Your task to perform on an android device: Open Google Chrome and open the bookmarks view Image 0: 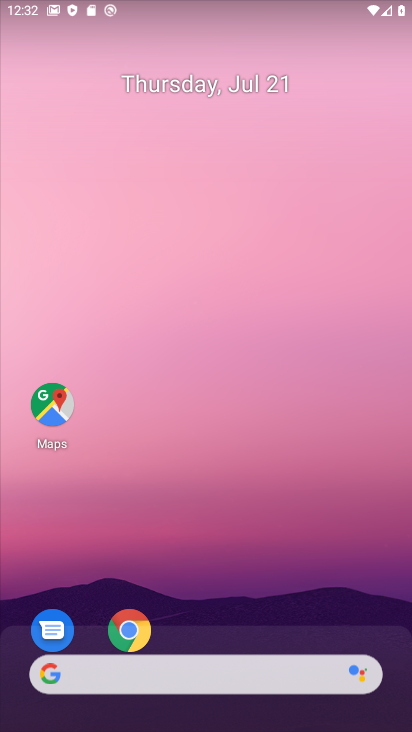
Step 0: click (142, 627)
Your task to perform on an android device: Open Google Chrome and open the bookmarks view Image 1: 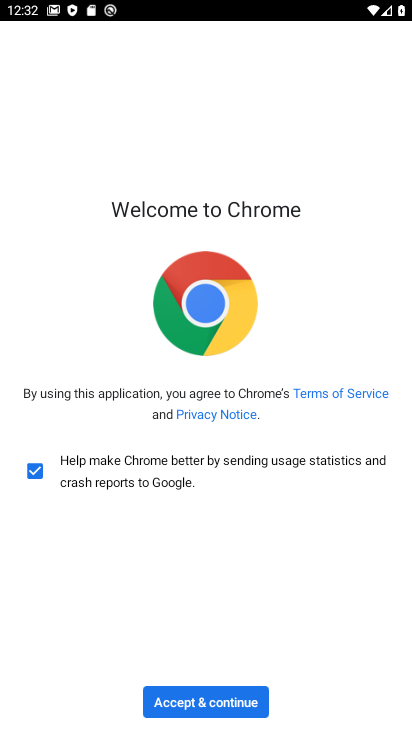
Step 1: click (221, 714)
Your task to perform on an android device: Open Google Chrome and open the bookmarks view Image 2: 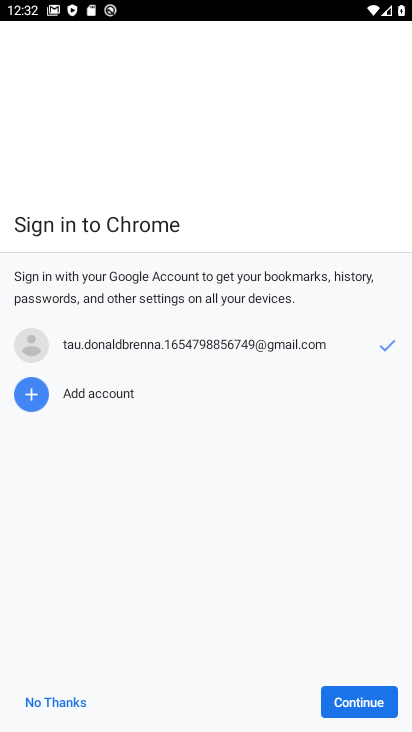
Step 2: click (335, 706)
Your task to perform on an android device: Open Google Chrome and open the bookmarks view Image 3: 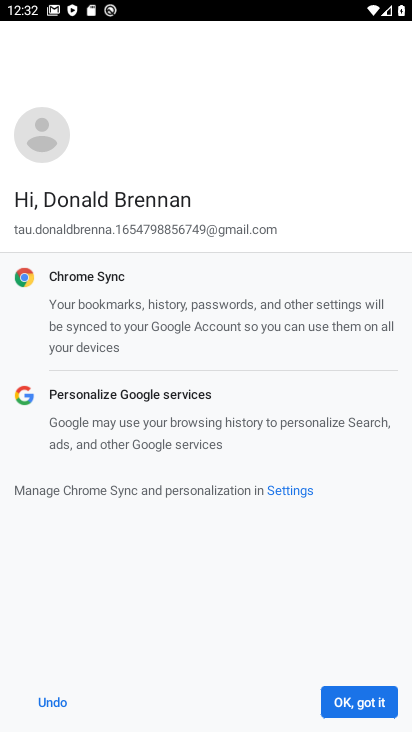
Step 3: click (362, 707)
Your task to perform on an android device: Open Google Chrome and open the bookmarks view Image 4: 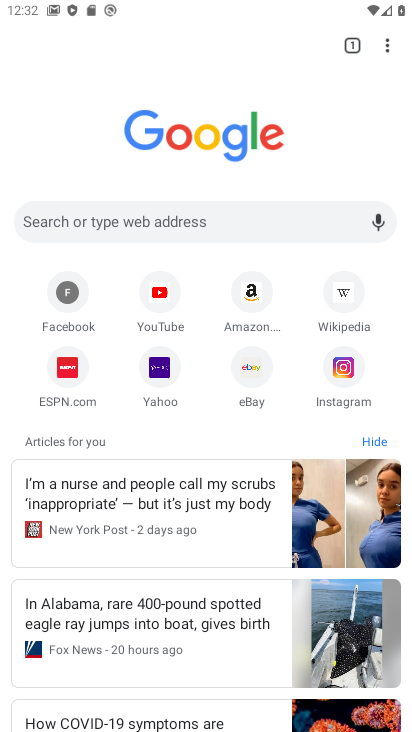
Step 4: click (389, 41)
Your task to perform on an android device: Open Google Chrome and open the bookmarks view Image 5: 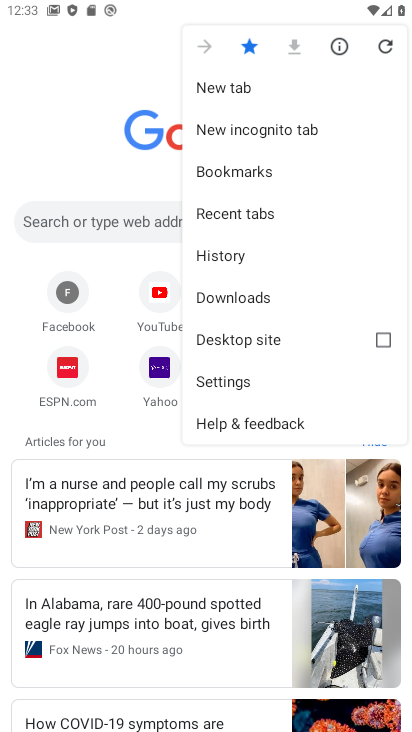
Step 5: click (275, 170)
Your task to perform on an android device: Open Google Chrome and open the bookmarks view Image 6: 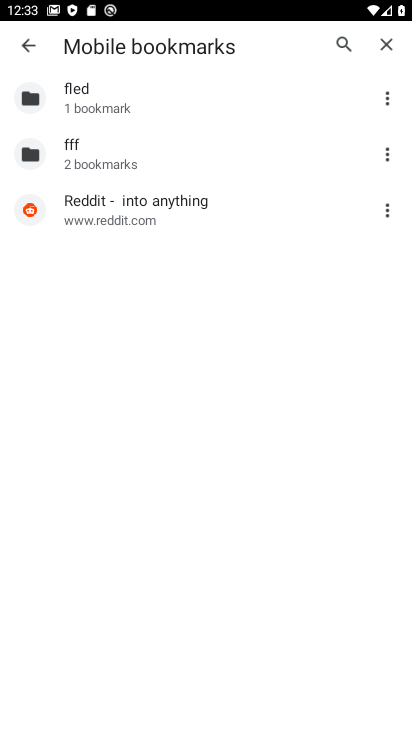
Step 6: task complete